Your task to perform on an android device: Open Google Chrome and click the shortcut for Amazon.com Image 0: 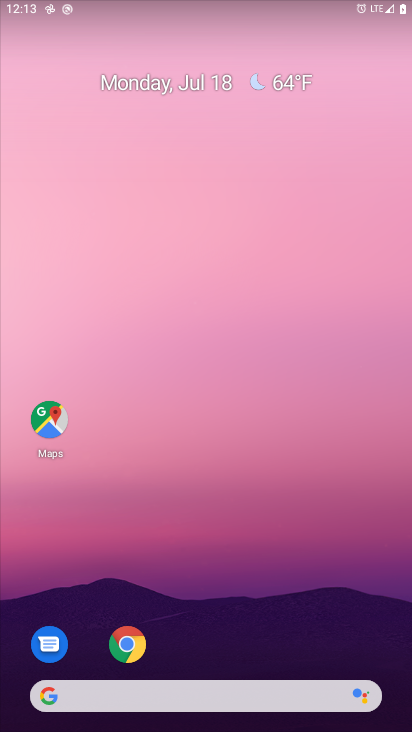
Step 0: press home button
Your task to perform on an android device: Open Google Chrome and click the shortcut for Amazon.com Image 1: 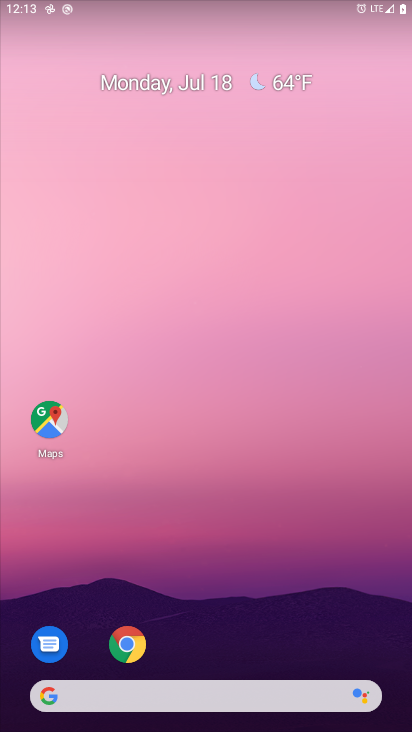
Step 1: click (125, 635)
Your task to perform on an android device: Open Google Chrome and click the shortcut for Amazon.com Image 2: 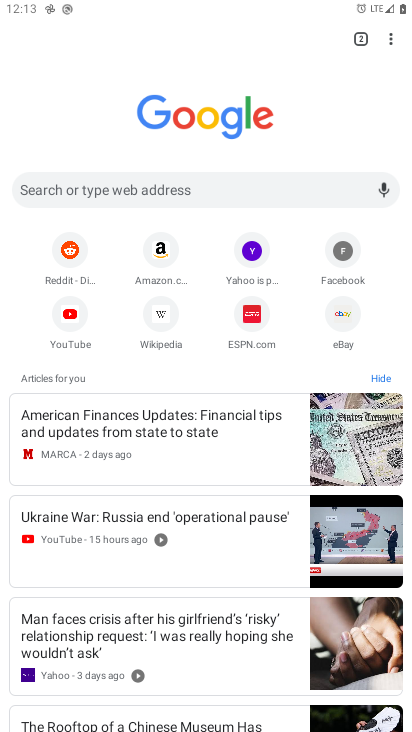
Step 2: click (153, 248)
Your task to perform on an android device: Open Google Chrome and click the shortcut for Amazon.com Image 3: 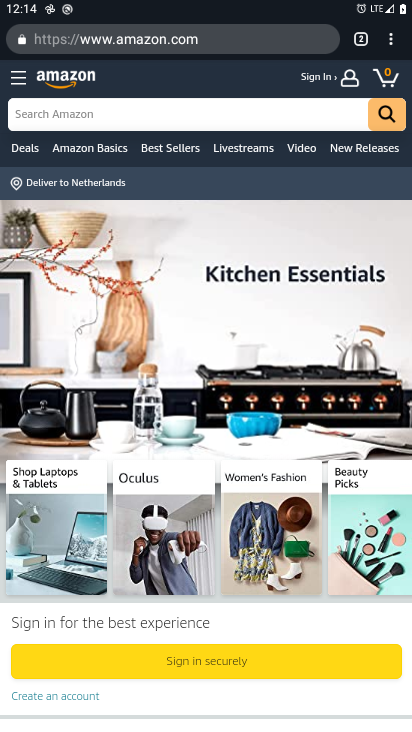
Step 3: task complete